Your task to perform on an android device: Play the last video I watched on Youtube Image 0: 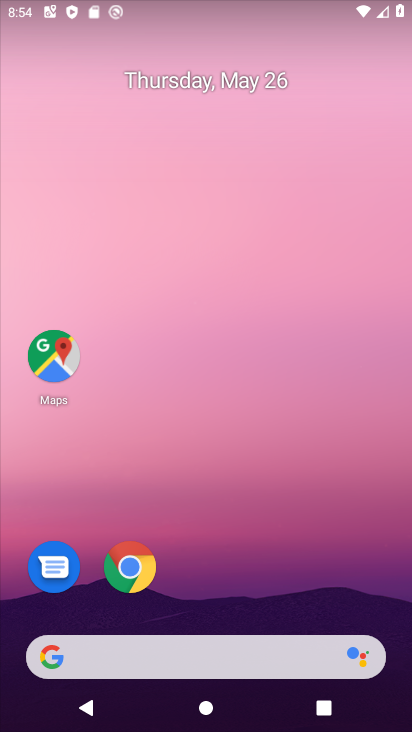
Step 0: press home button
Your task to perform on an android device: Play the last video I watched on Youtube Image 1: 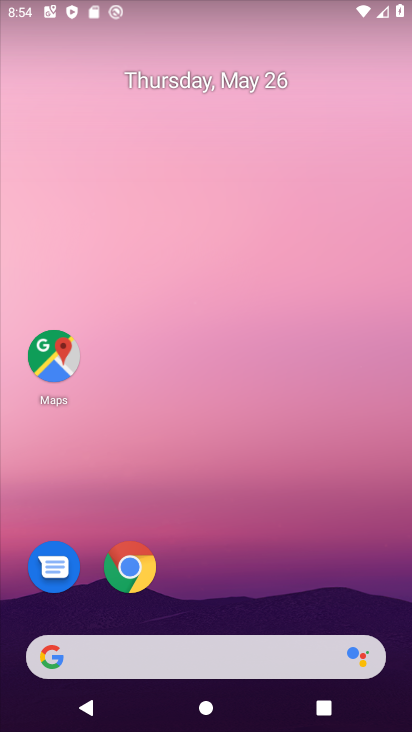
Step 1: drag from (227, 648) to (367, 97)
Your task to perform on an android device: Play the last video I watched on Youtube Image 2: 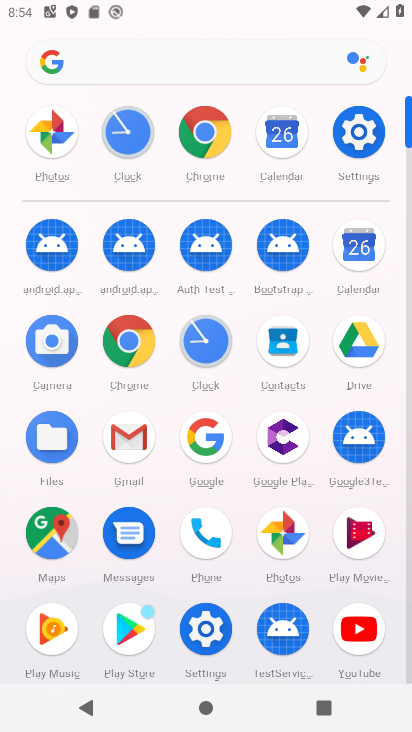
Step 2: click (358, 637)
Your task to perform on an android device: Play the last video I watched on Youtube Image 3: 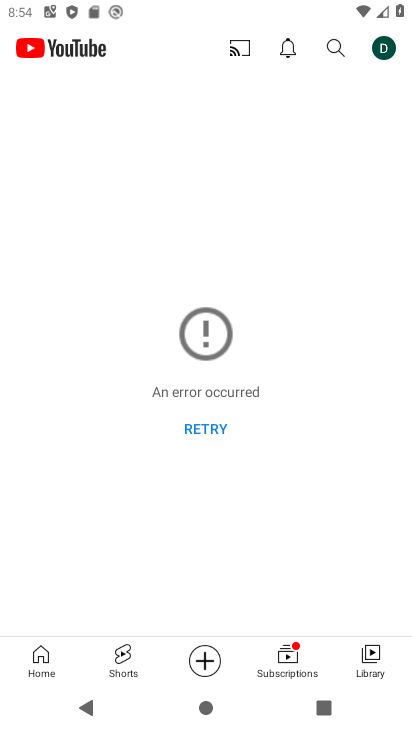
Step 3: click (368, 666)
Your task to perform on an android device: Play the last video I watched on Youtube Image 4: 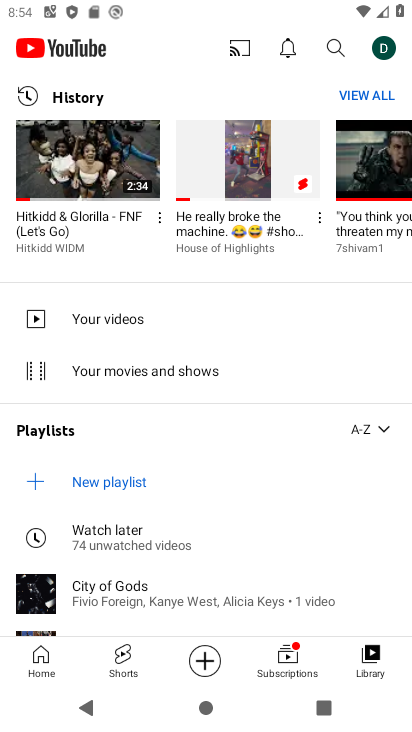
Step 4: click (92, 163)
Your task to perform on an android device: Play the last video I watched on Youtube Image 5: 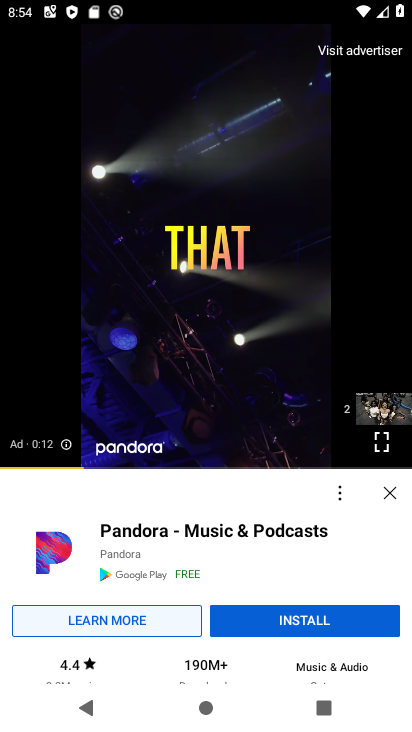
Step 5: click (220, 230)
Your task to perform on an android device: Play the last video I watched on Youtube Image 6: 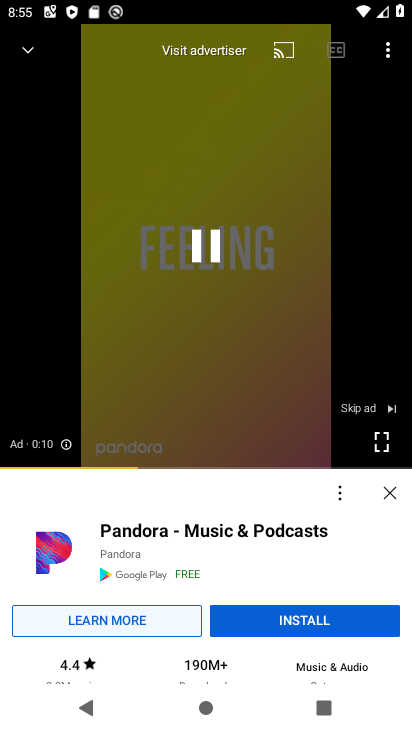
Step 6: click (214, 235)
Your task to perform on an android device: Play the last video I watched on Youtube Image 7: 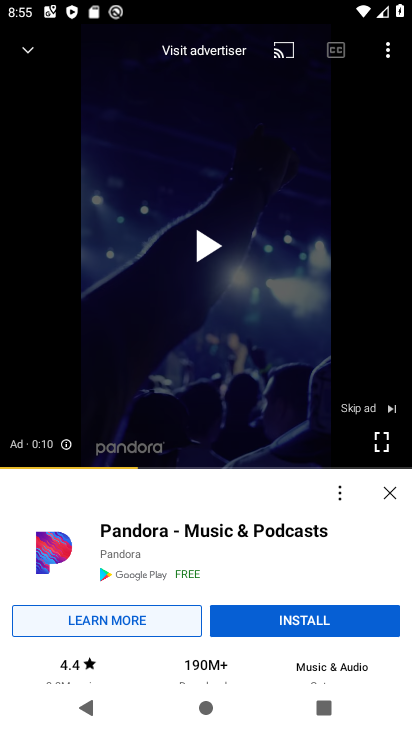
Step 7: task complete